Your task to perform on an android device: turn smart compose on in the gmail app Image 0: 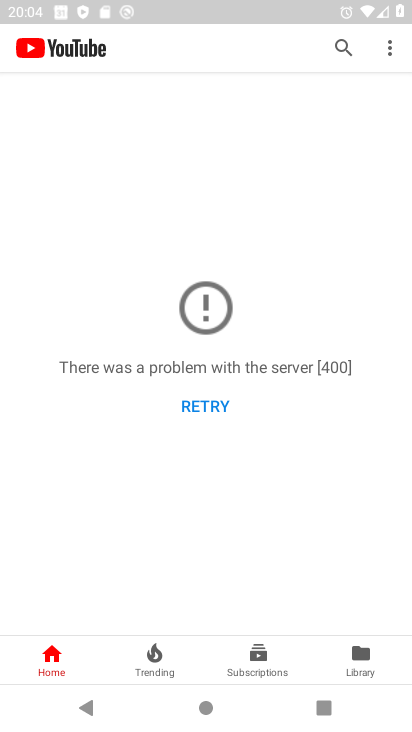
Step 0: press home button
Your task to perform on an android device: turn smart compose on in the gmail app Image 1: 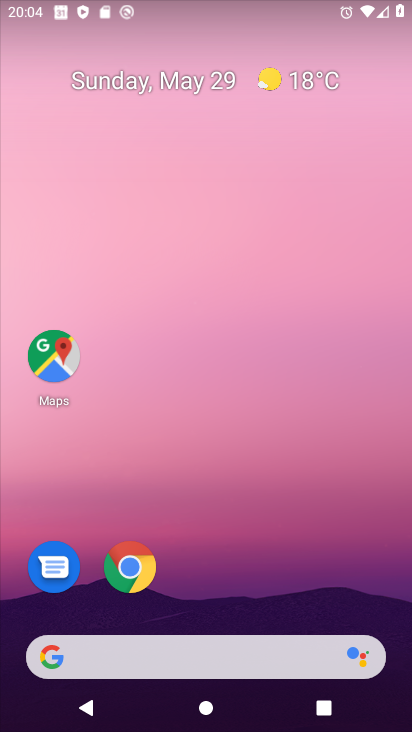
Step 1: drag from (396, 643) to (331, 148)
Your task to perform on an android device: turn smart compose on in the gmail app Image 2: 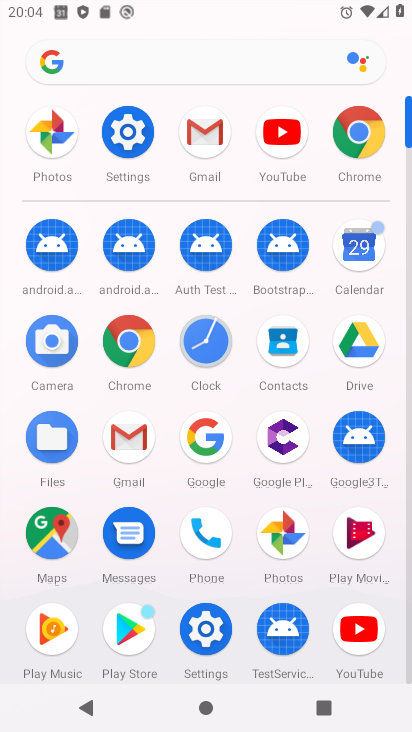
Step 2: click (135, 443)
Your task to perform on an android device: turn smart compose on in the gmail app Image 3: 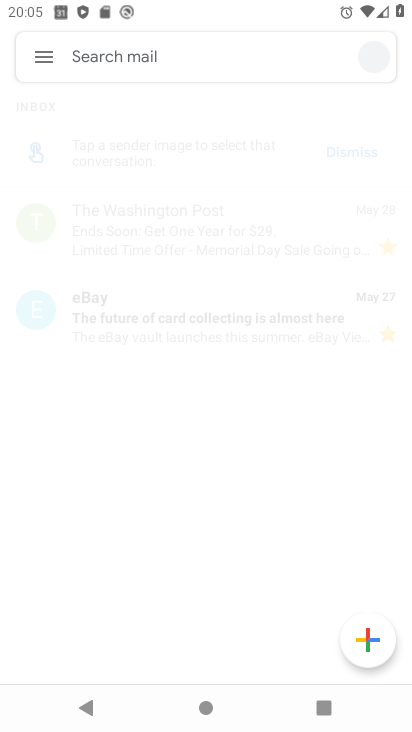
Step 3: click (46, 58)
Your task to perform on an android device: turn smart compose on in the gmail app Image 4: 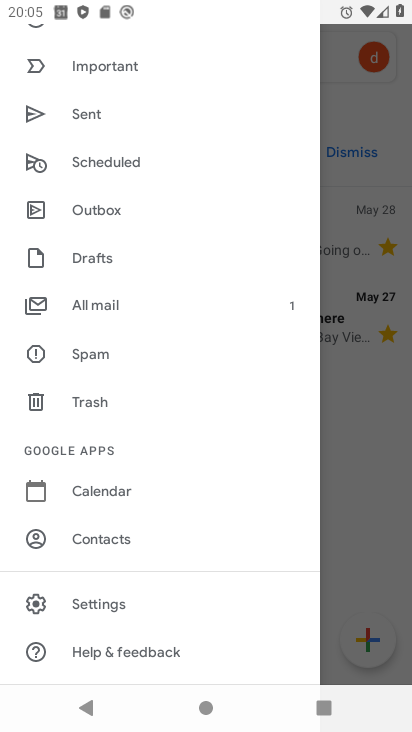
Step 4: click (95, 599)
Your task to perform on an android device: turn smart compose on in the gmail app Image 5: 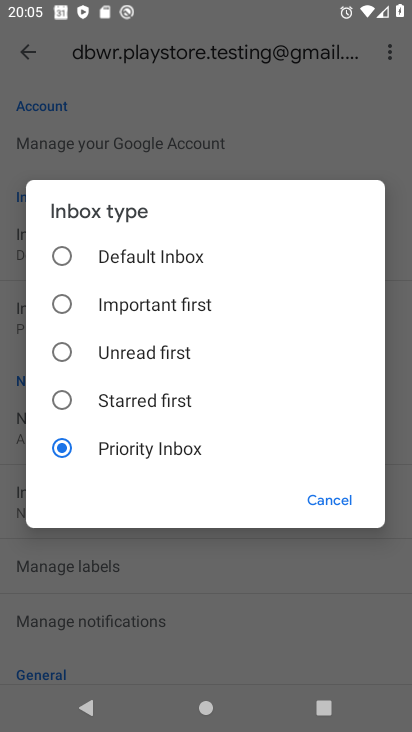
Step 5: click (321, 509)
Your task to perform on an android device: turn smart compose on in the gmail app Image 6: 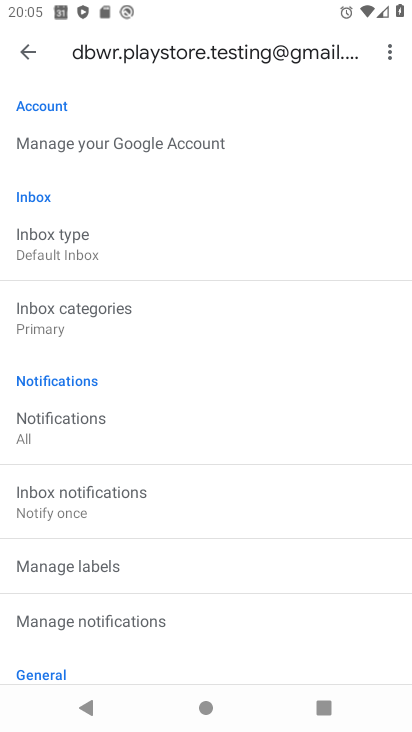
Step 6: task complete